Your task to perform on an android device: see sites visited before in the chrome app Image 0: 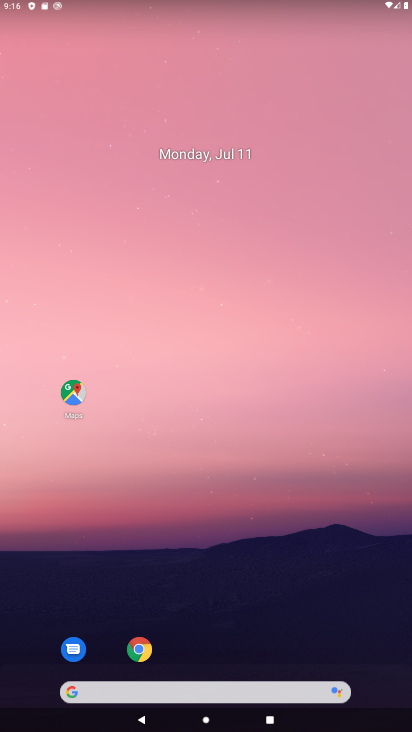
Step 0: drag from (135, 669) to (252, 108)
Your task to perform on an android device: see sites visited before in the chrome app Image 1: 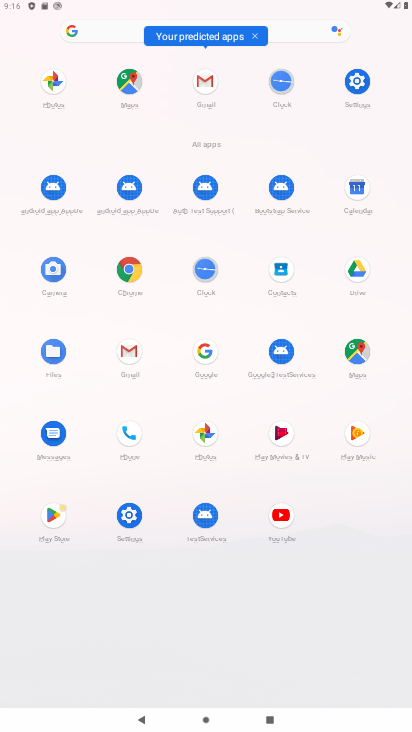
Step 1: click (130, 272)
Your task to perform on an android device: see sites visited before in the chrome app Image 2: 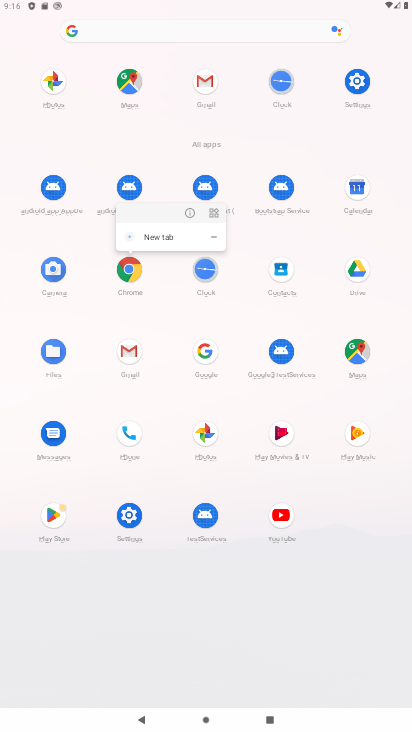
Step 2: click (128, 274)
Your task to perform on an android device: see sites visited before in the chrome app Image 3: 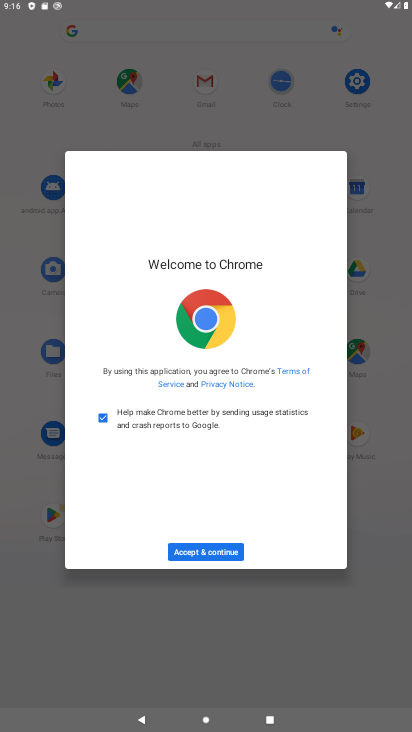
Step 3: click (205, 553)
Your task to perform on an android device: see sites visited before in the chrome app Image 4: 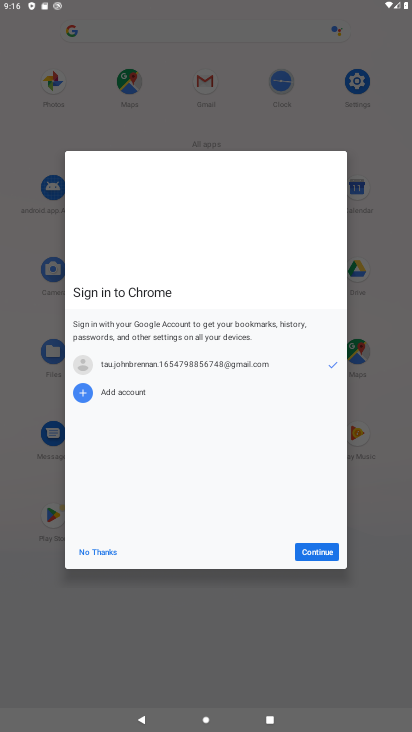
Step 4: click (345, 544)
Your task to perform on an android device: see sites visited before in the chrome app Image 5: 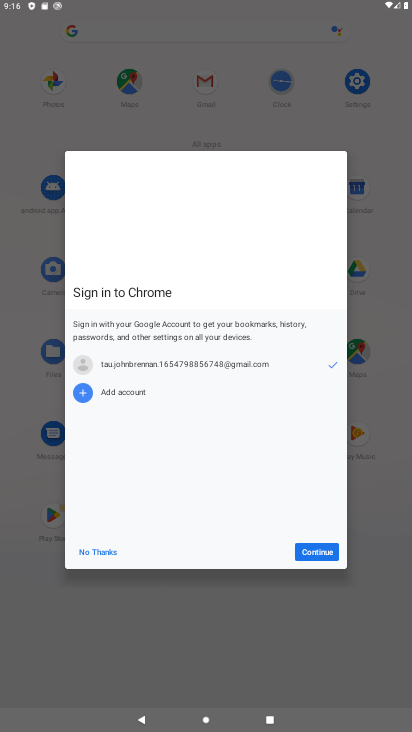
Step 5: click (335, 547)
Your task to perform on an android device: see sites visited before in the chrome app Image 6: 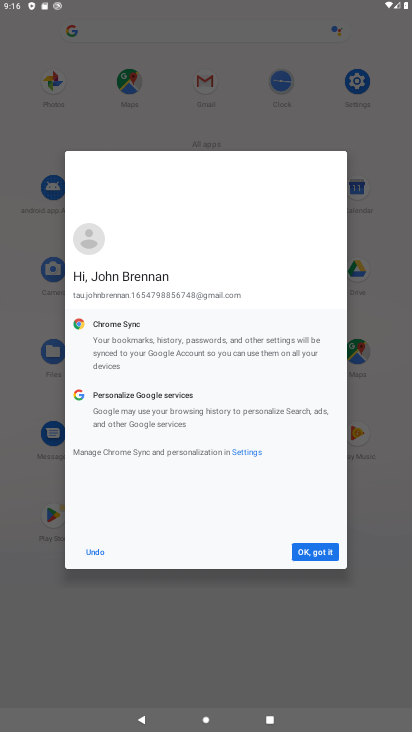
Step 6: click (332, 548)
Your task to perform on an android device: see sites visited before in the chrome app Image 7: 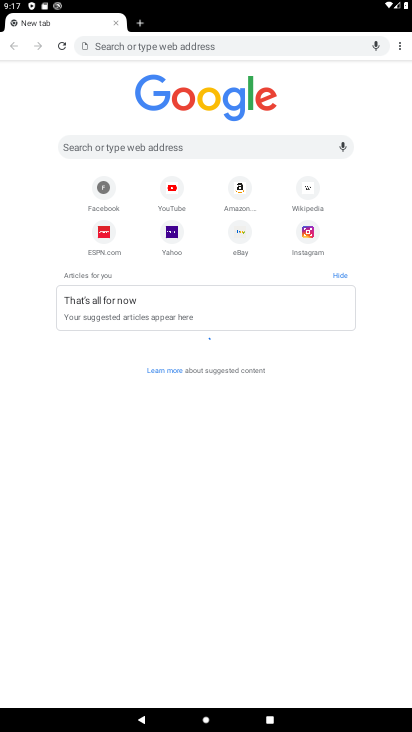
Step 7: task complete